Your task to perform on an android device: Go to battery settings Image 0: 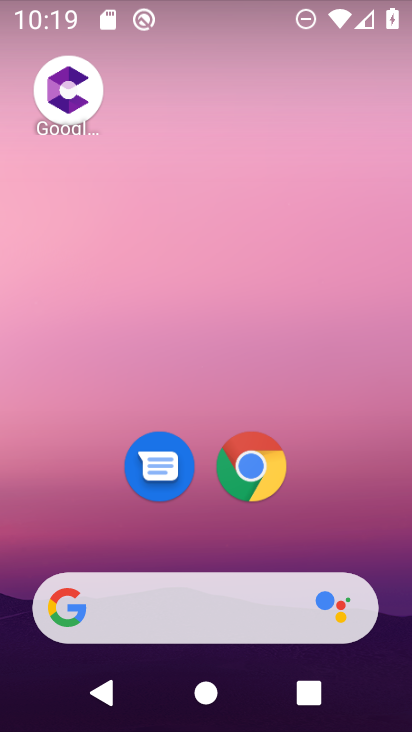
Step 0: drag from (233, 489) to (297, 4)
Your task to perform on an android device: Go to battery settings Image 1: 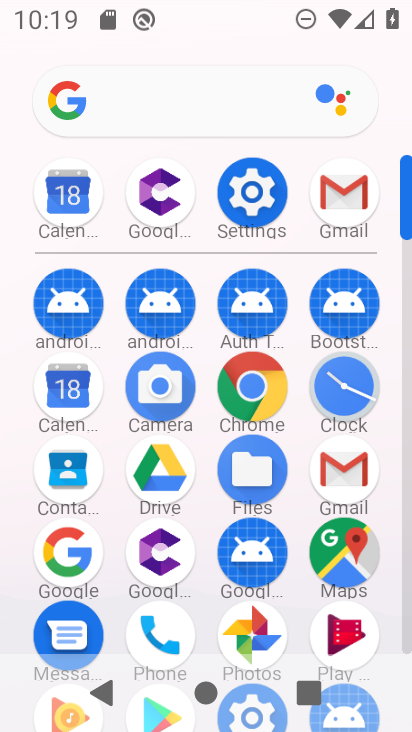
Step 1: click (269, 179)
Your task to perform on an android device: Go to battery settings Image 2: 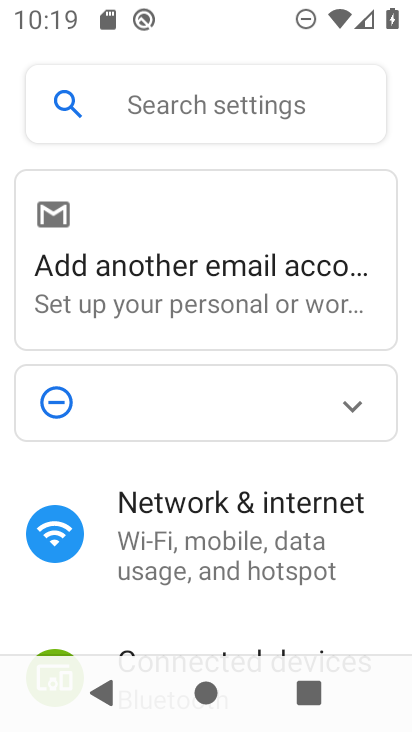
Step 2: drag from (206, 520) to (247, 104)
Your task to perform on an android device: Go to battery settings Image 3: 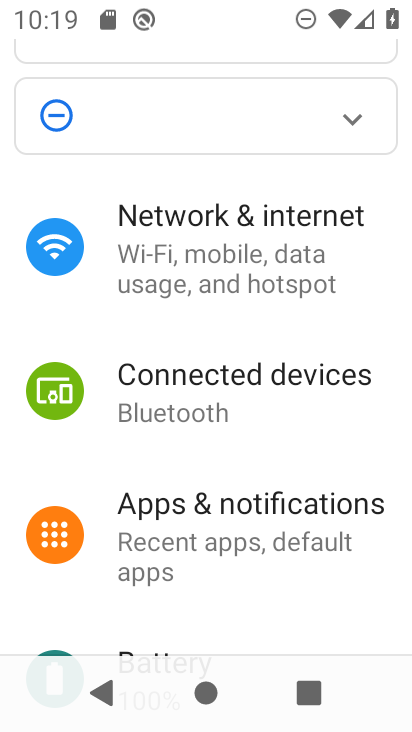
Step 3: drag from (168, 600) to (238, 86)
Your task to perform on an android device: Go to battery settings Image 4: 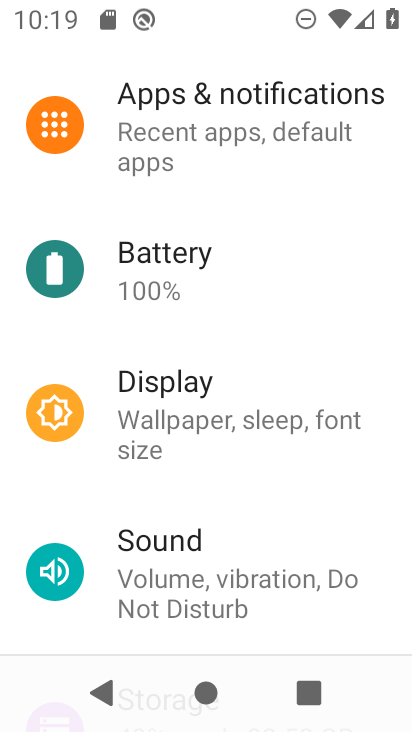
Step 4: click (160, 263)
Your task to perform on an android device: Go to battery settings Image 5: 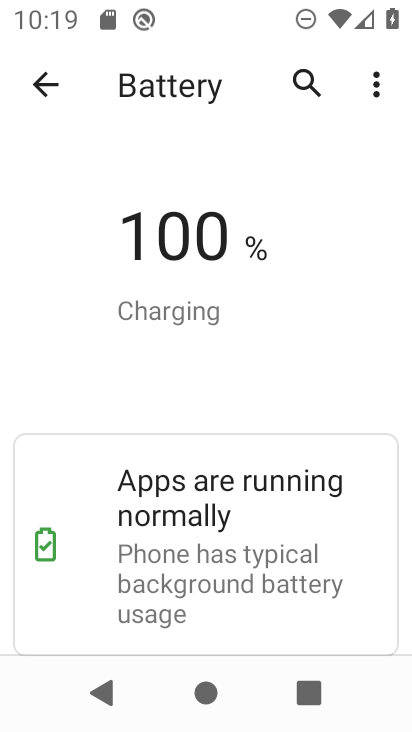
Step 5: task complete